Your task to perform on an android device: Go to internet settings Image 0: 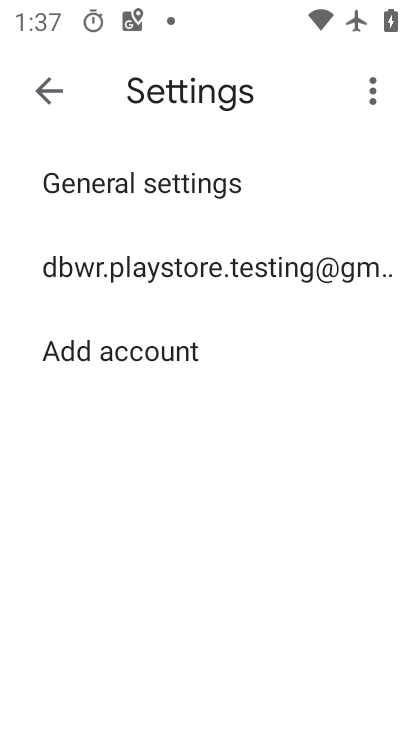
Step 0: press home button
Your task to perform on an android device: Go to internet settings Image 1: 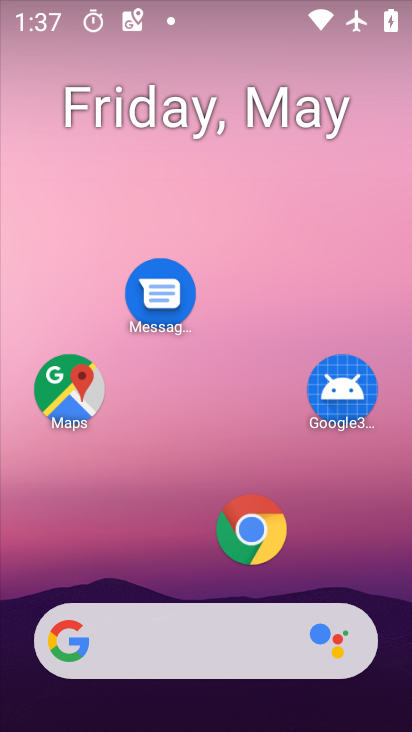
Step 1: drag from (194, 603) to (155, 0)
Your task to perform on an android device: Go to internet settings Image 2: 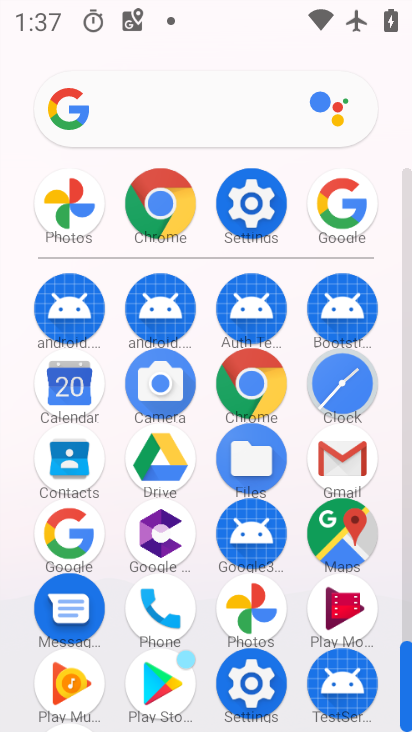
Step 2: click (264, 226)
Your task to perform on an android device: Go to internet settings Image 3: 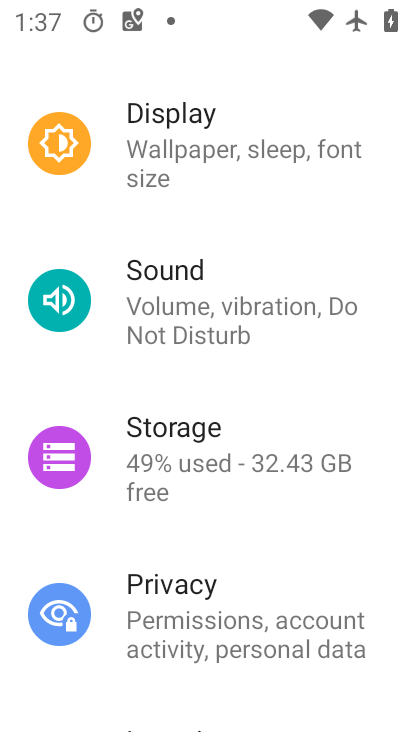
Step 3: drag from (266, 250) to (324, 656)
Your task to perform on an android device: Go to internet settings Image 4: 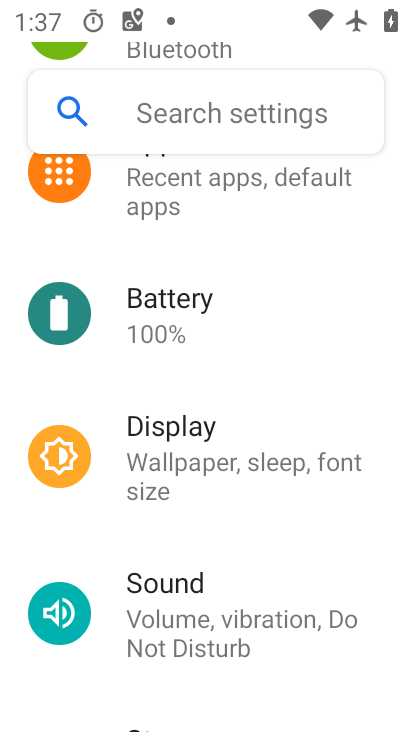
Step 4: drag from (236, 367) to (301, 728)
Your task to perform on an android device: Go to internet settings Image 5: 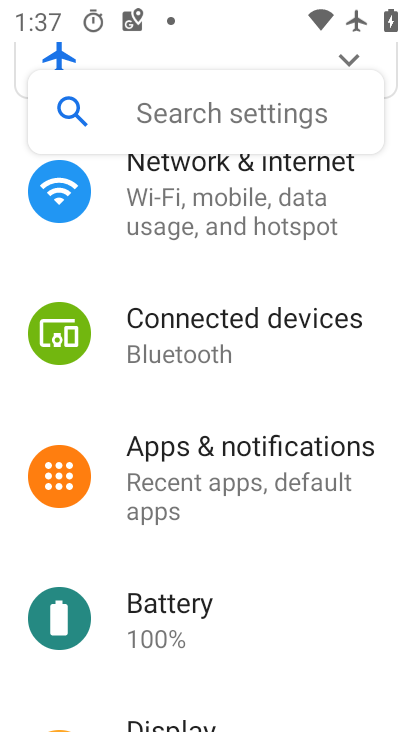
Step 5: drag from (151, 300) to (156, 725)
Your task to perform on an android device: Go to internet settings Image 6: 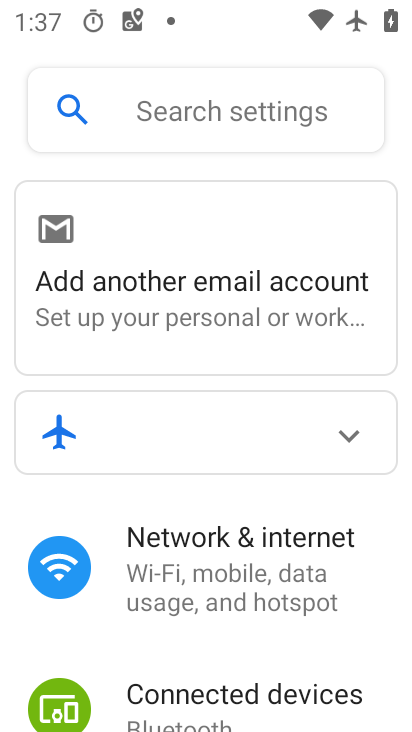
Step 6: click (189, 603)
Your task to perform on an android device: Go to internet settings Image 7: 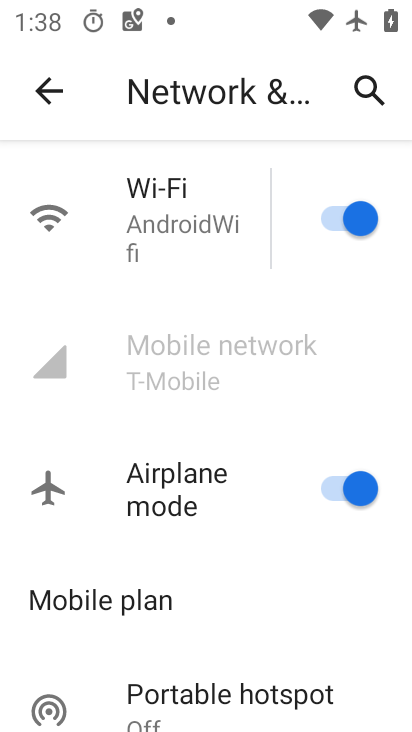
Step 7: click (224, 389)
Your task to perform on an android device: Go to internet settings Image 8: 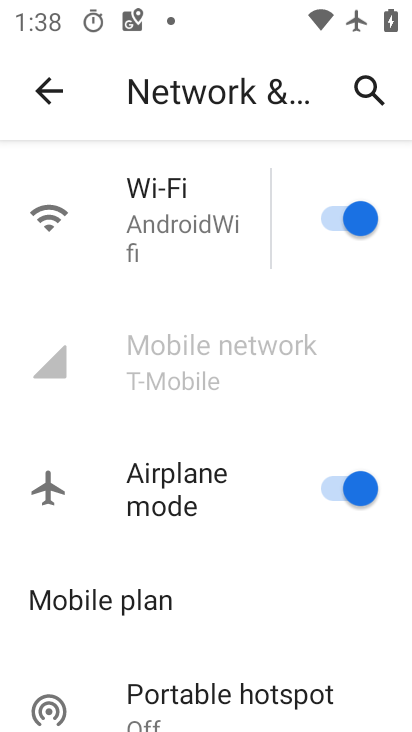
Step 8: task complete